Your task to perform on an android device: remove spam from my inbox in the gmail app Image 0: 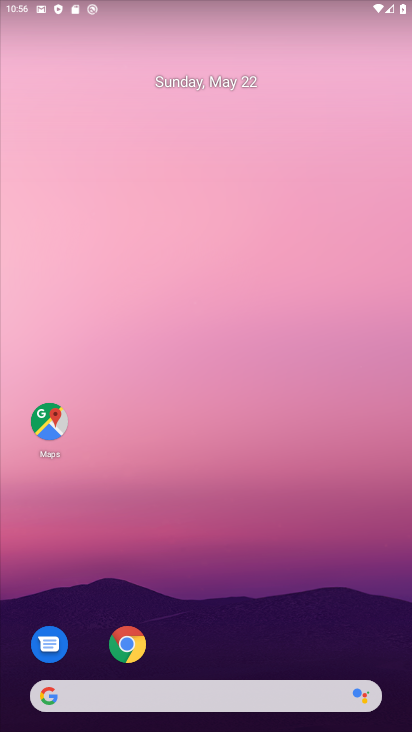
Step 0: task complete